Your task to perform on an android device: change the upload size in google photos Image 0: 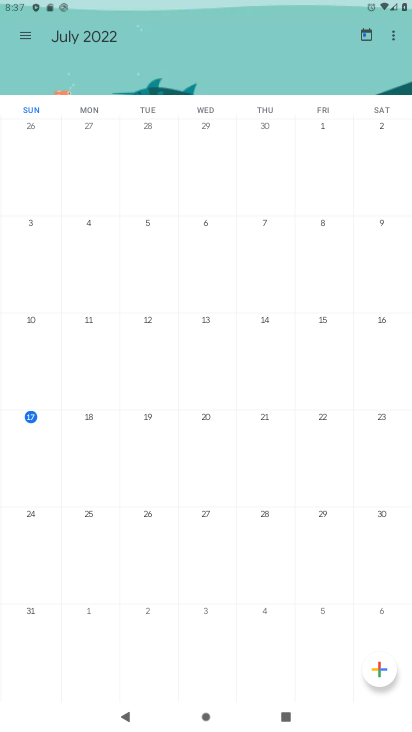
Step 0: press home button
Your task to perform on an android device: change the upload size in google photos Image 1: 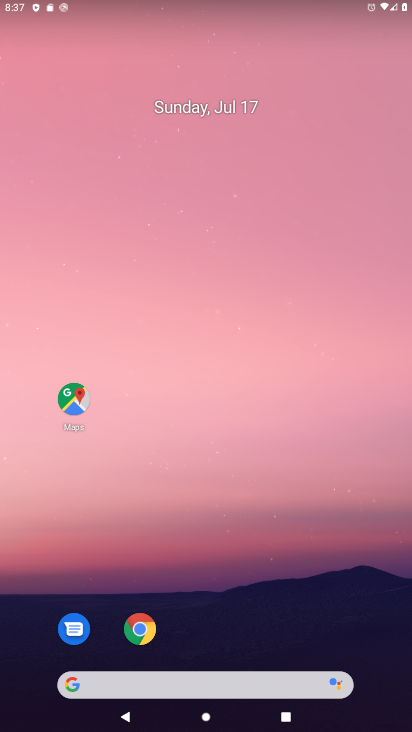
Step 1: drag from (274, 590) to (249, 183)
Your task to perform on an android device: change the upload size in google photos Image 2: 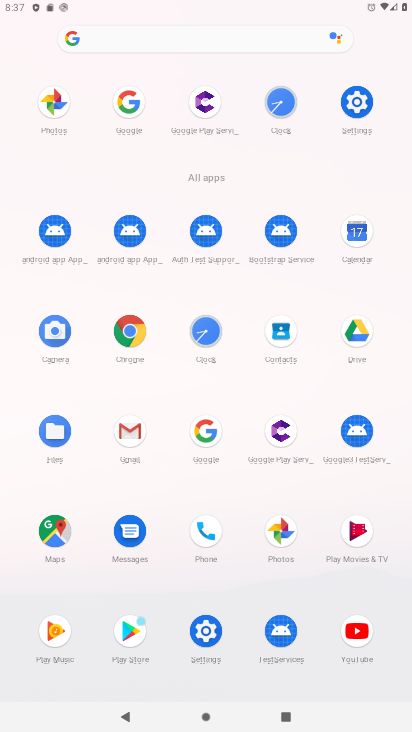
Step 2: click (60, 97)
Your task to perform on an android device: change the upload size in google photos Image 3: 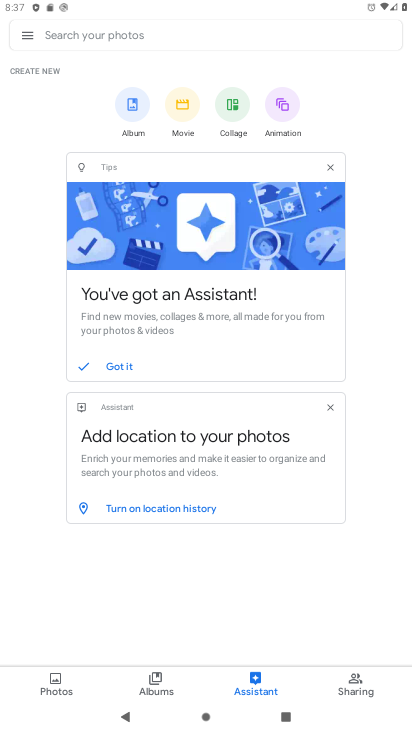
Step 3: click (31, 30)
Your task to perform on an android device: change the upload size in google photos Image 4: 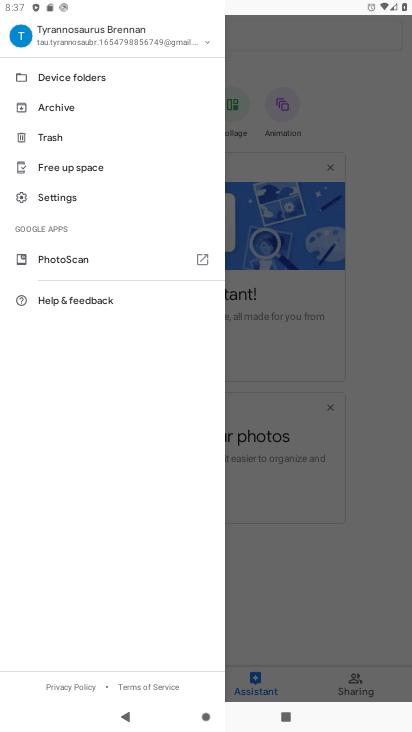
Step 4: click (53, 190)
Your task to perform on an android device: change the upload size in google photos Image 5: 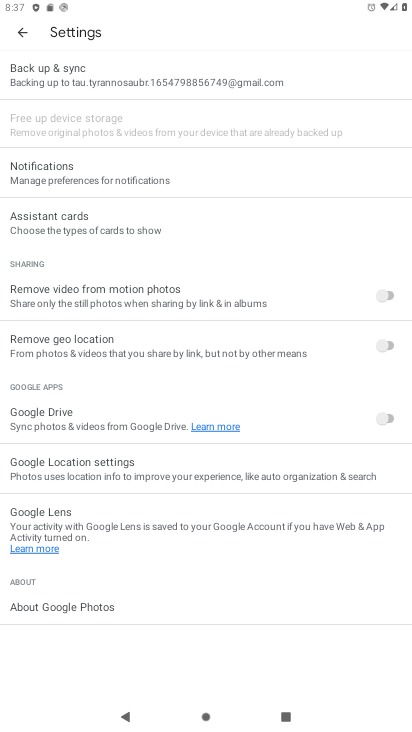
Step 5: click (107, 73)
Your task to perform on an android device: change the upload size in google photos Image 6: 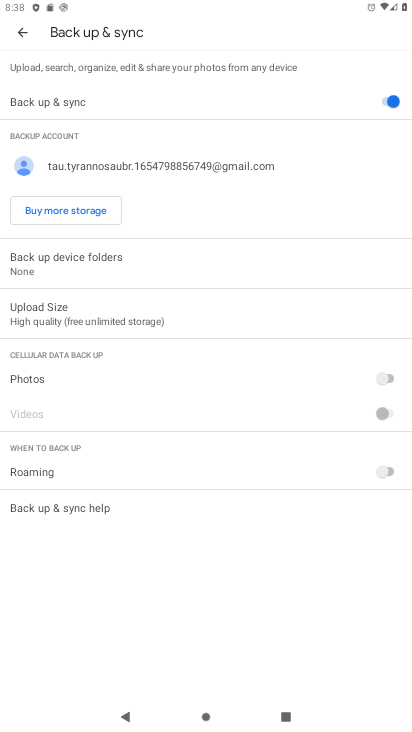
Step 6: click (178, 318)
Your task to perform on an android device: change the upload size in google photos Image 7: 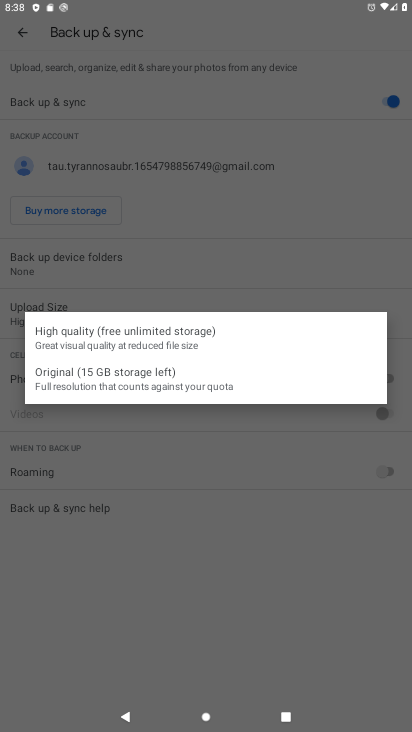
Step 7: click (184, 374)
Your task to perform on an android device: change the upload size in google photos Image 8: 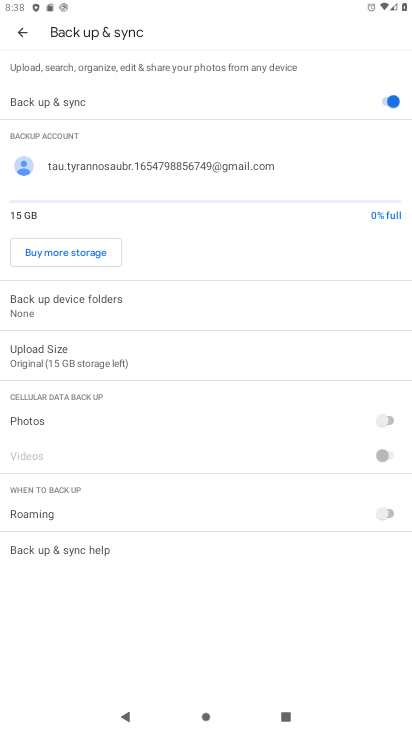
Step 8: task complete